Your task to perform on an android device: Show me the alarms in the clock app Image 0: 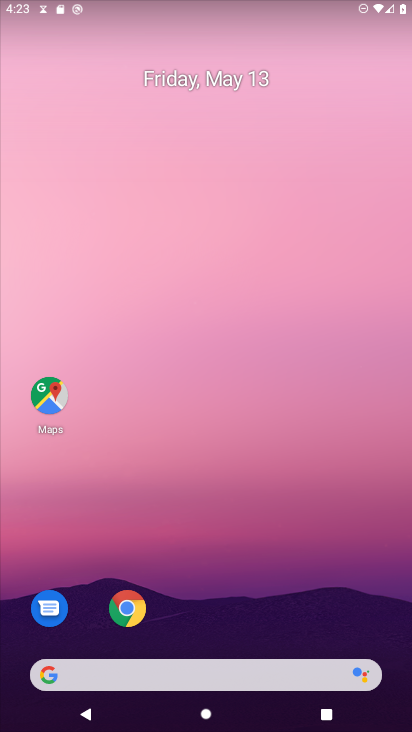
Step 0: drag from (269, 644) to (370, 159)
Your task to perform on an android device: Show me the alarms in the clock app Image 1: 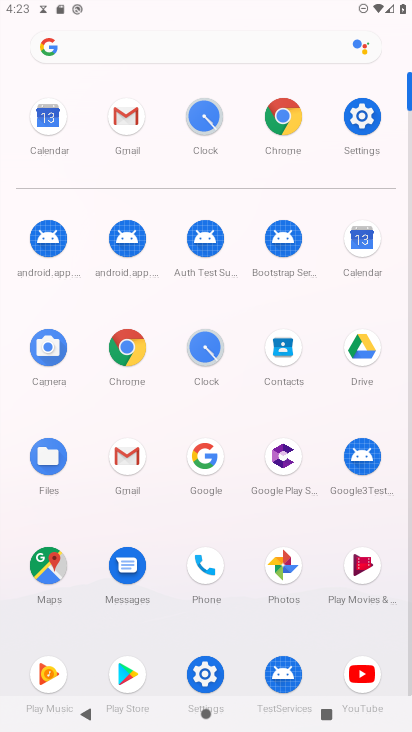
Step 1: click (200, 357)
Your task to perform on an android device: Show me the alarms in the clock app Image 2: 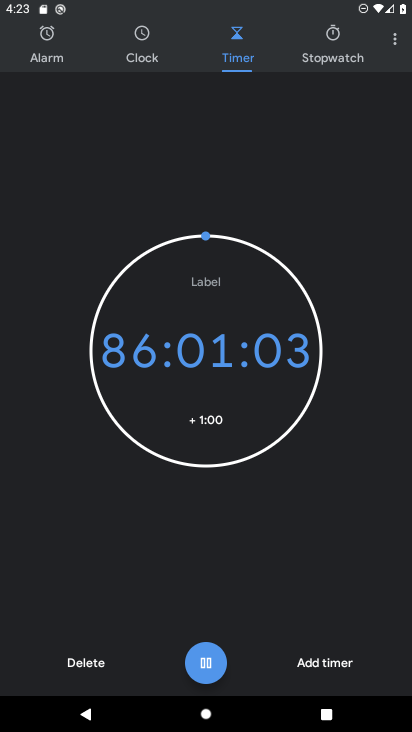
Step 2: click (391, 43)
Your task to perform on an android device: Show me the alarms in the clock app Image 3: 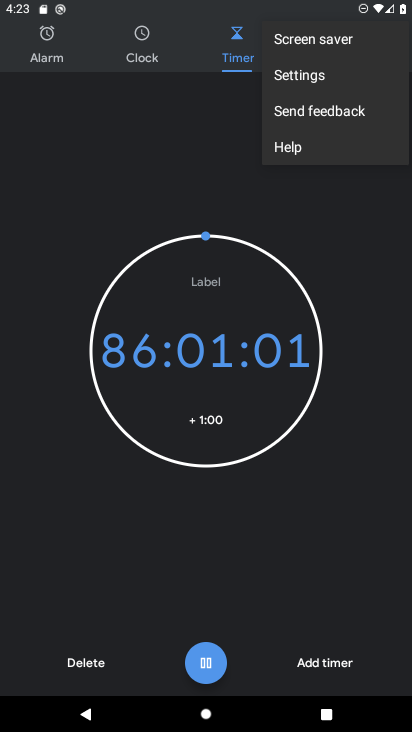
Step 3: click (161, 187)
Your task to perform on an android device: Show me the alarms in the clock app Image 4: 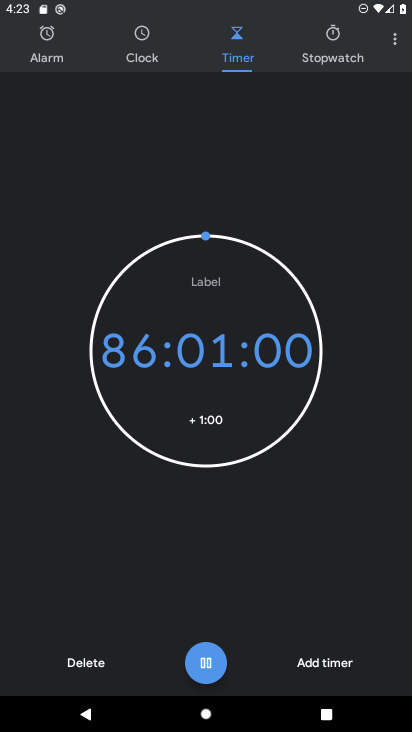
Step 4: click (46, 46)
Your task to perform on an android device: Show me the alarms in the clock app Image 5: 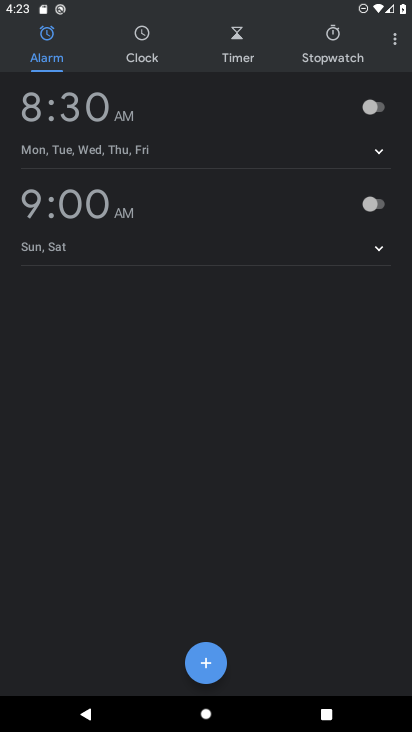
Step 5: task complete